Your task to perform on an android device: Set the phone to "Do not disturb". Image 0: 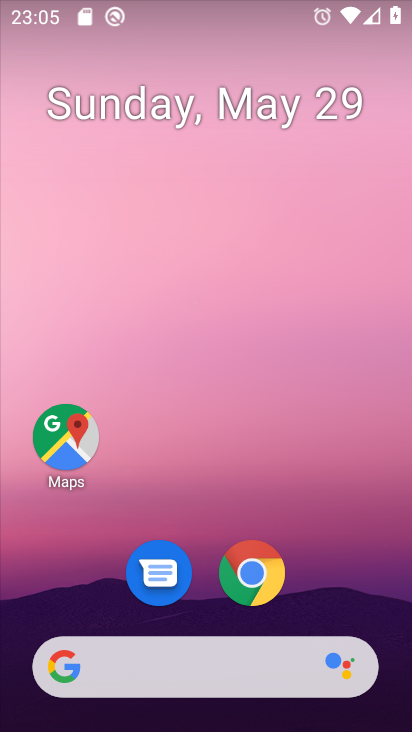
Step 0: drag from (218, 478) to (234, 10)
Your task to perform on an android device: Set the phone to "Do not disturb". Image 1: 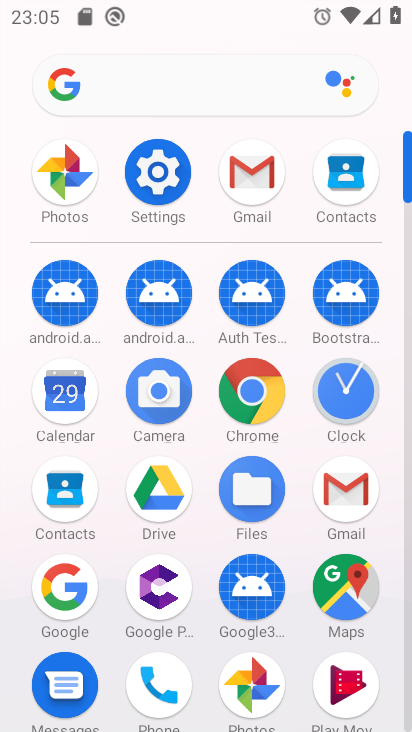
Step 1: click (153, 161)
Your task to perform on an android device: Set the phone to "Do not disturb". Image 2: 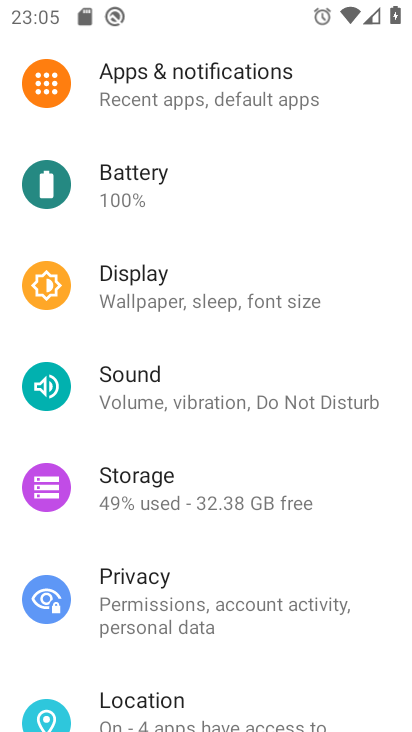
Step 2: click (217, 392)
Your task to perform on an android device: Set the phone to "Do not disturb". Image 3: 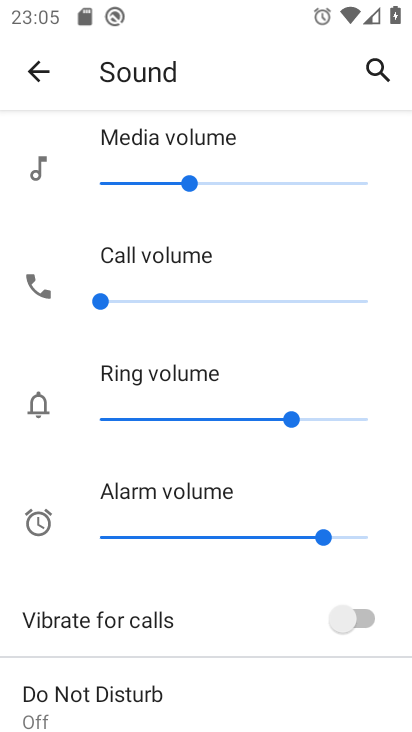
Step 3: drag from (230, 533) to (208, 281)
Your task to perform on an android device: Set the phone to "Do not disturb". Image 4: 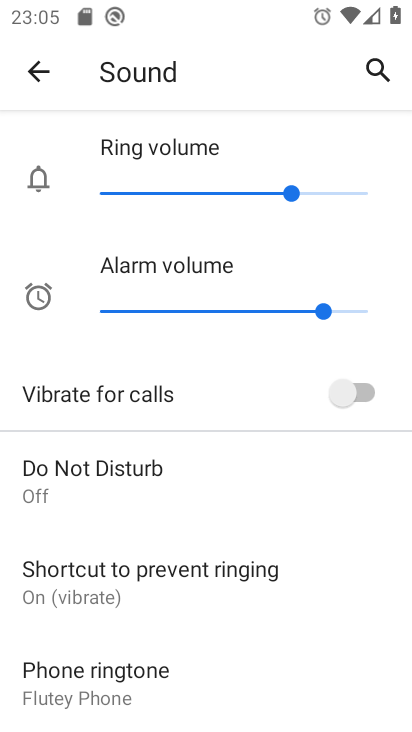
Step 4: click (182, 487)
Your task to perform on an android device: Set the phone to "Do not disturb". Image 5: 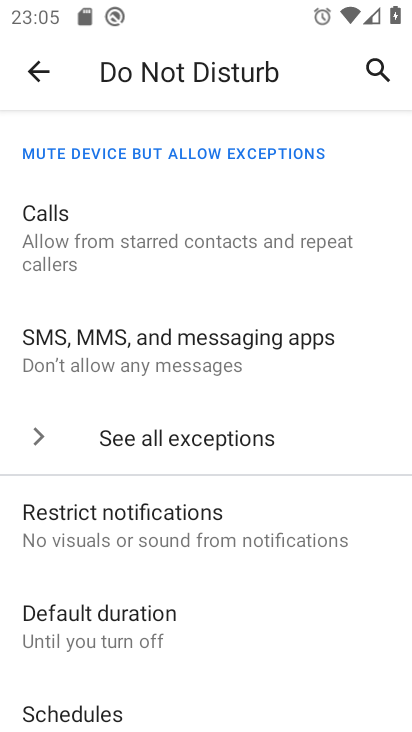
Step 5: drag from (192, 588) to (179, 307)
Your task to perform on an android device: Set the phone to "Do not disturb". Image 6: 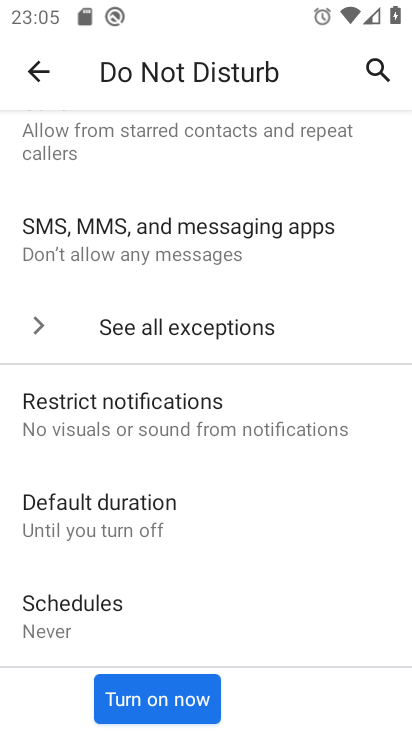
Step 6: click (192, 698)
Your task to perform on an android device: Set the phone to "Do not disturb". Image 7: 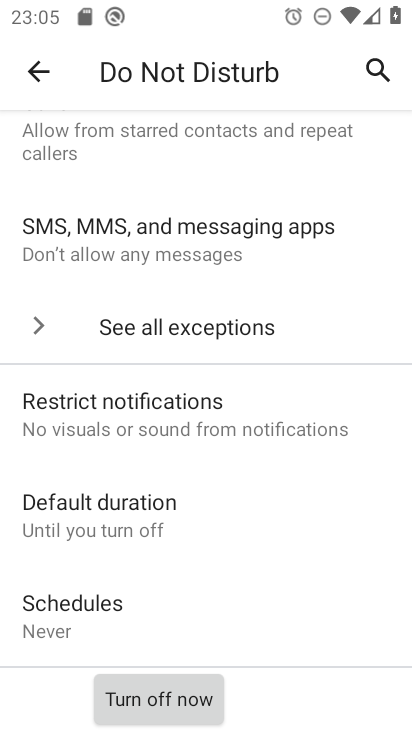
Step 7: task complete